Your task to perform on an android device: change the clock display to digital Image 0: 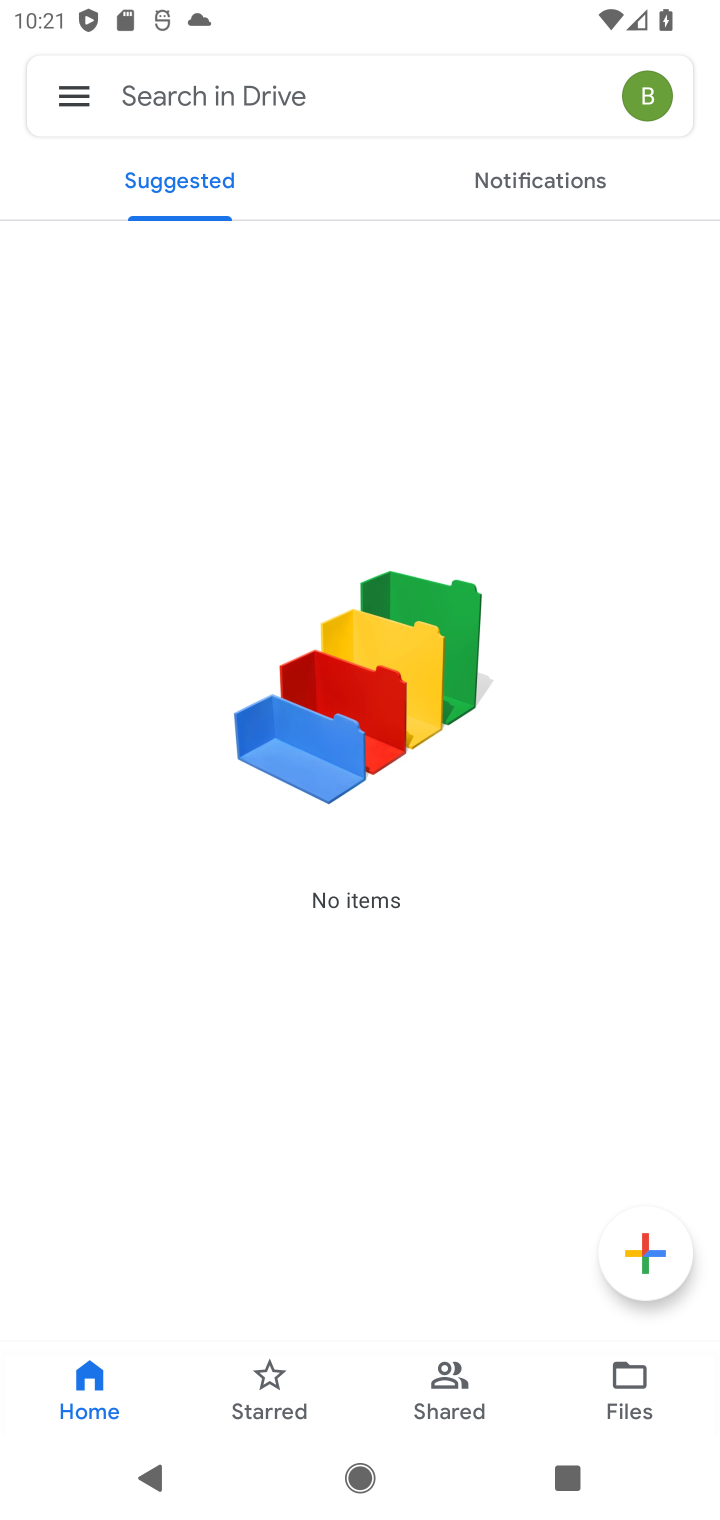
Step 0: press home button
Your task to perform on an android device: change the clock display to digital Image 1: 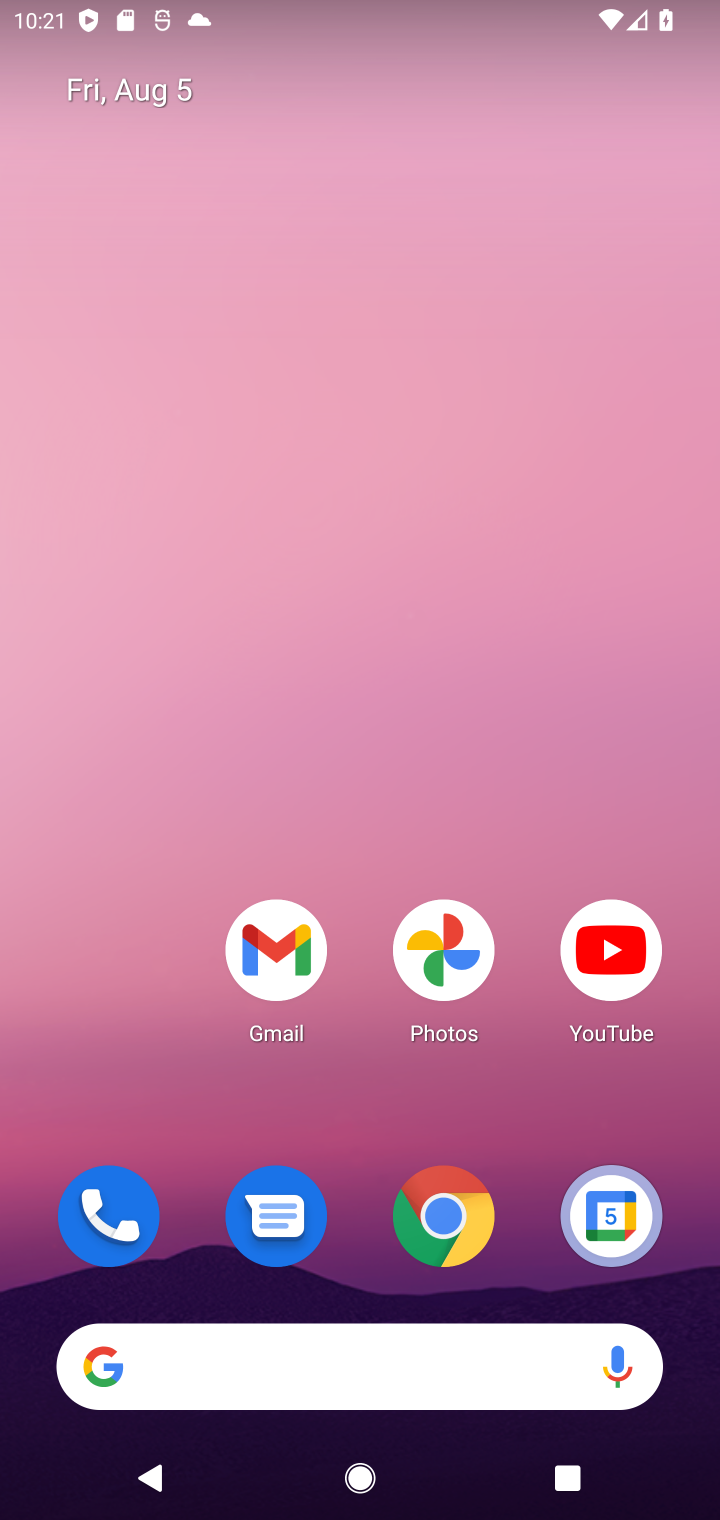
Step 1: drag from (328, 1354) to (416, 62)
Your task to perform on an android device: change the clock display to digital Image 2: 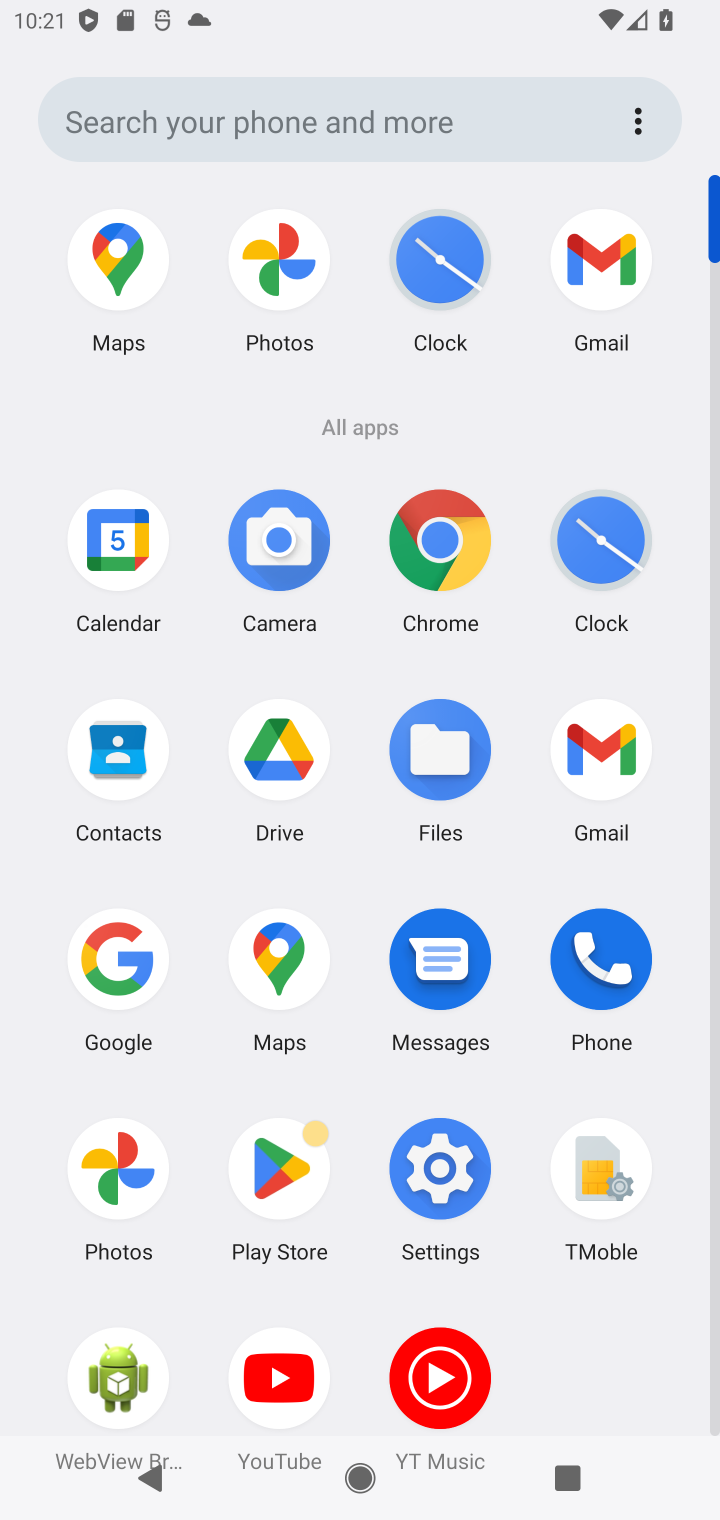
Step 2: click (580, 526)
Your task to perform on an android device: change the clock display to digital Image 3: 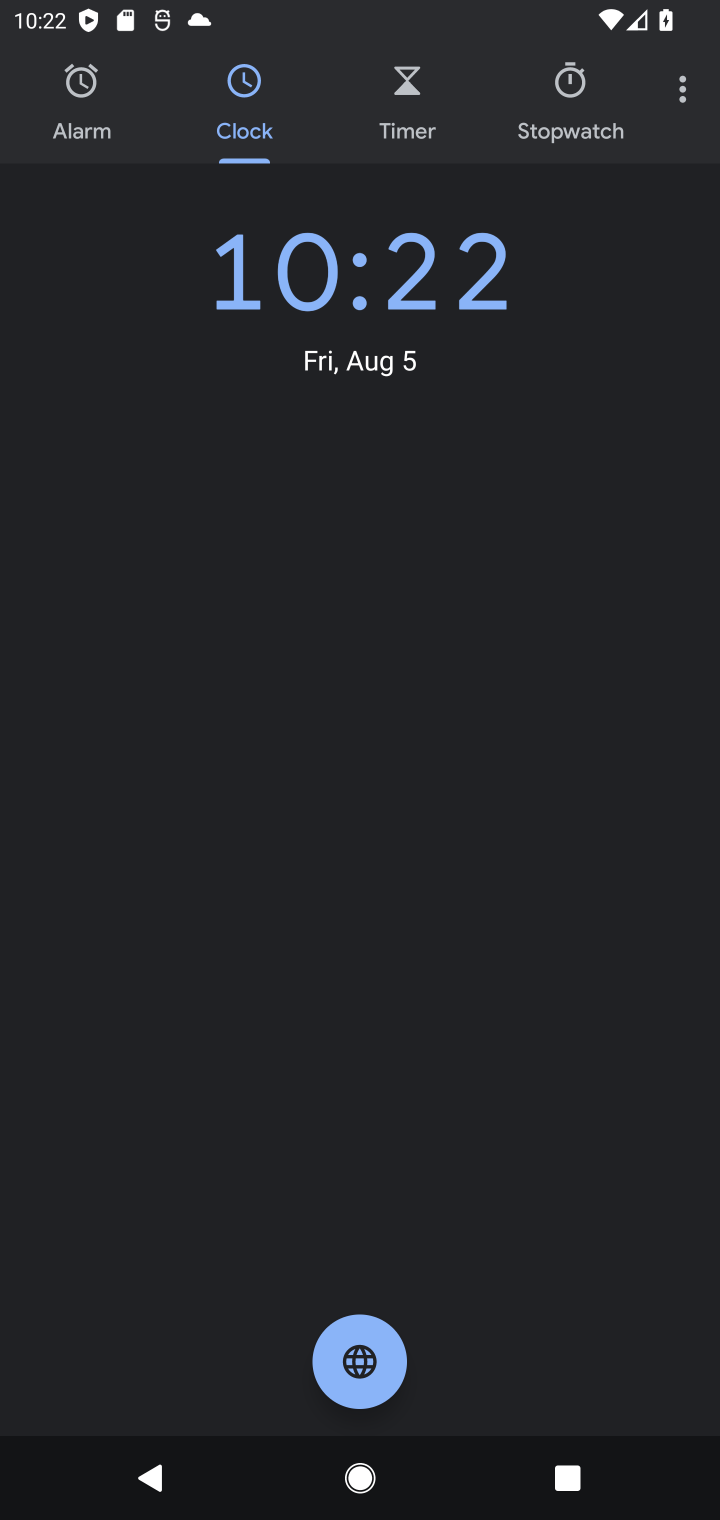
Step 3: click (673, 91)
Your task to perform on an android device: change the clock display to digital Image 4: 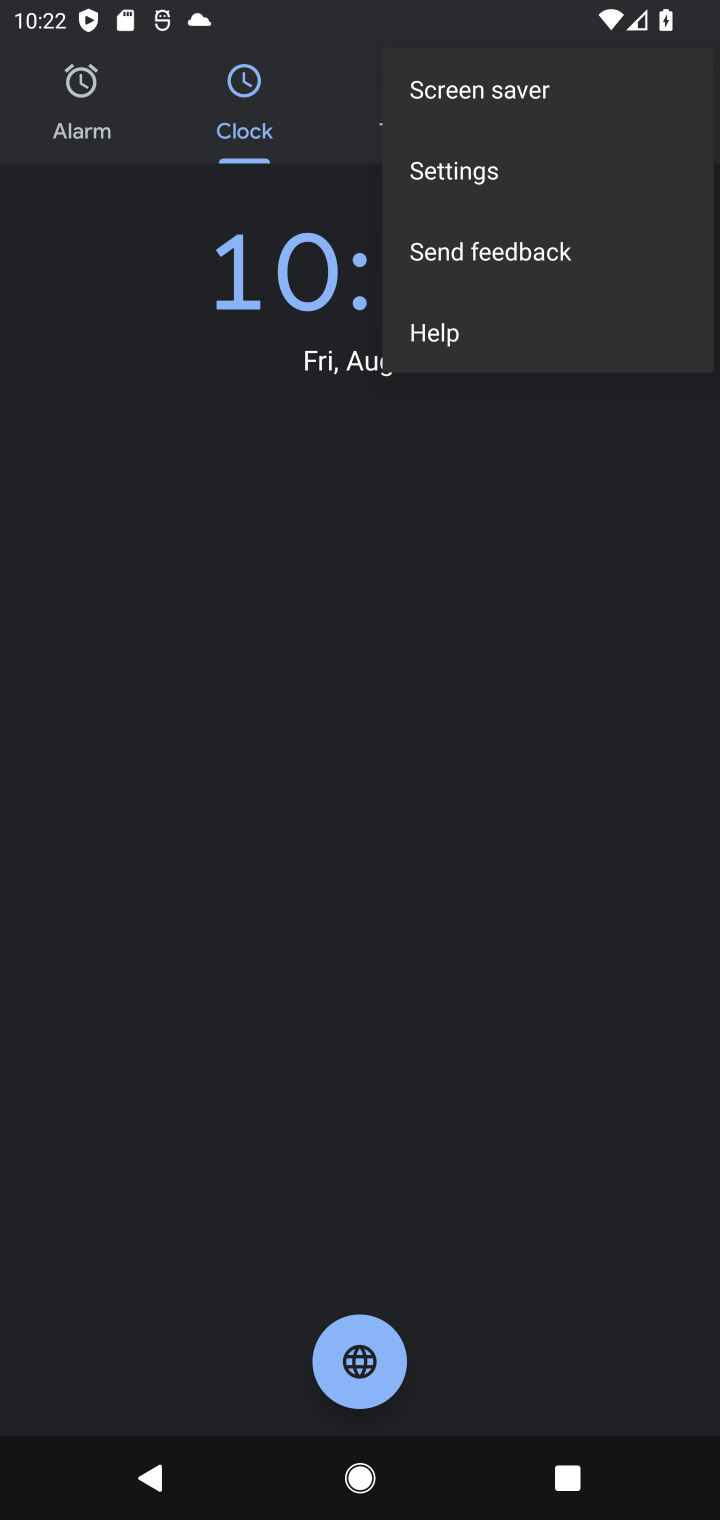
Step 4: click (436, 159)
Your task to perform on an android device: change the clock display to digital Image 5: 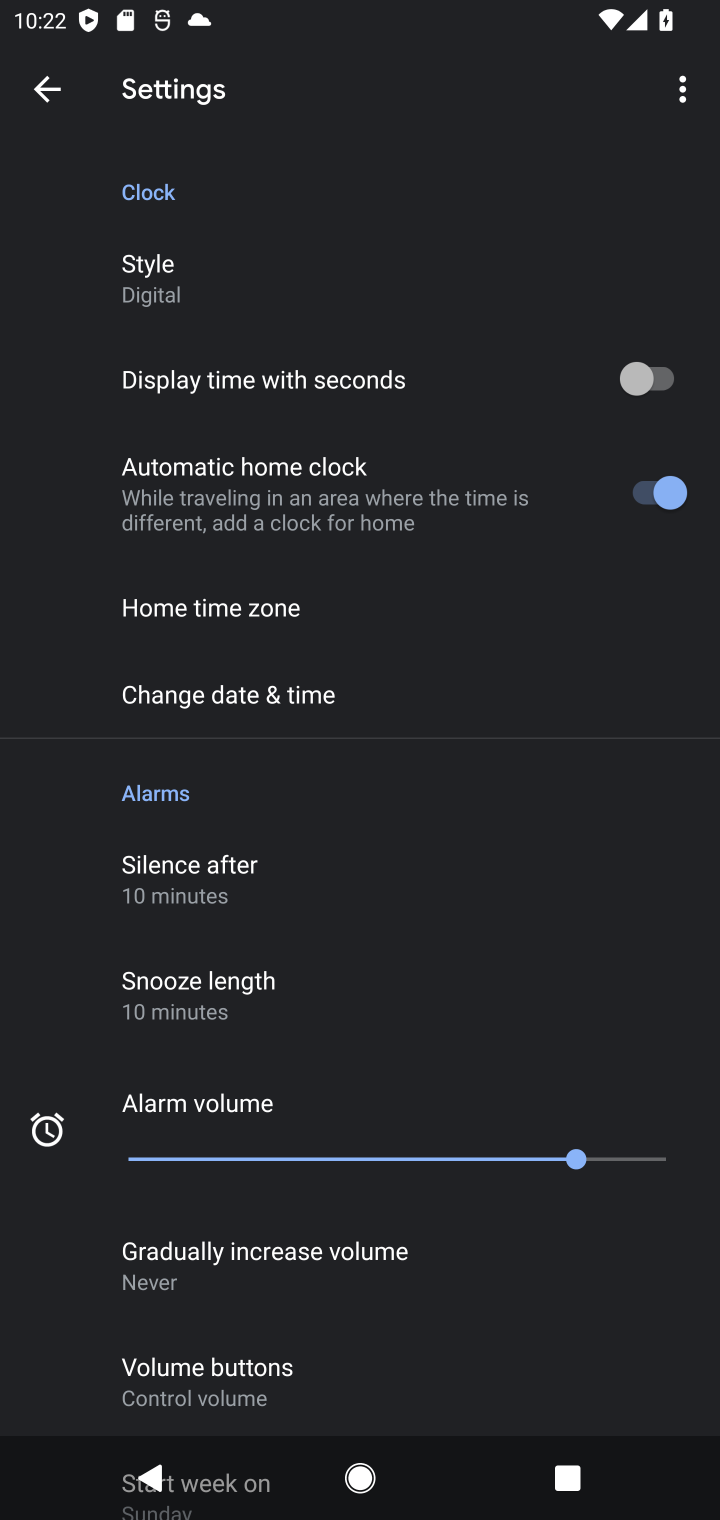
Step 5: task complete